Your task to perform on an android device: toggle data saver in the chrome app Image 0: 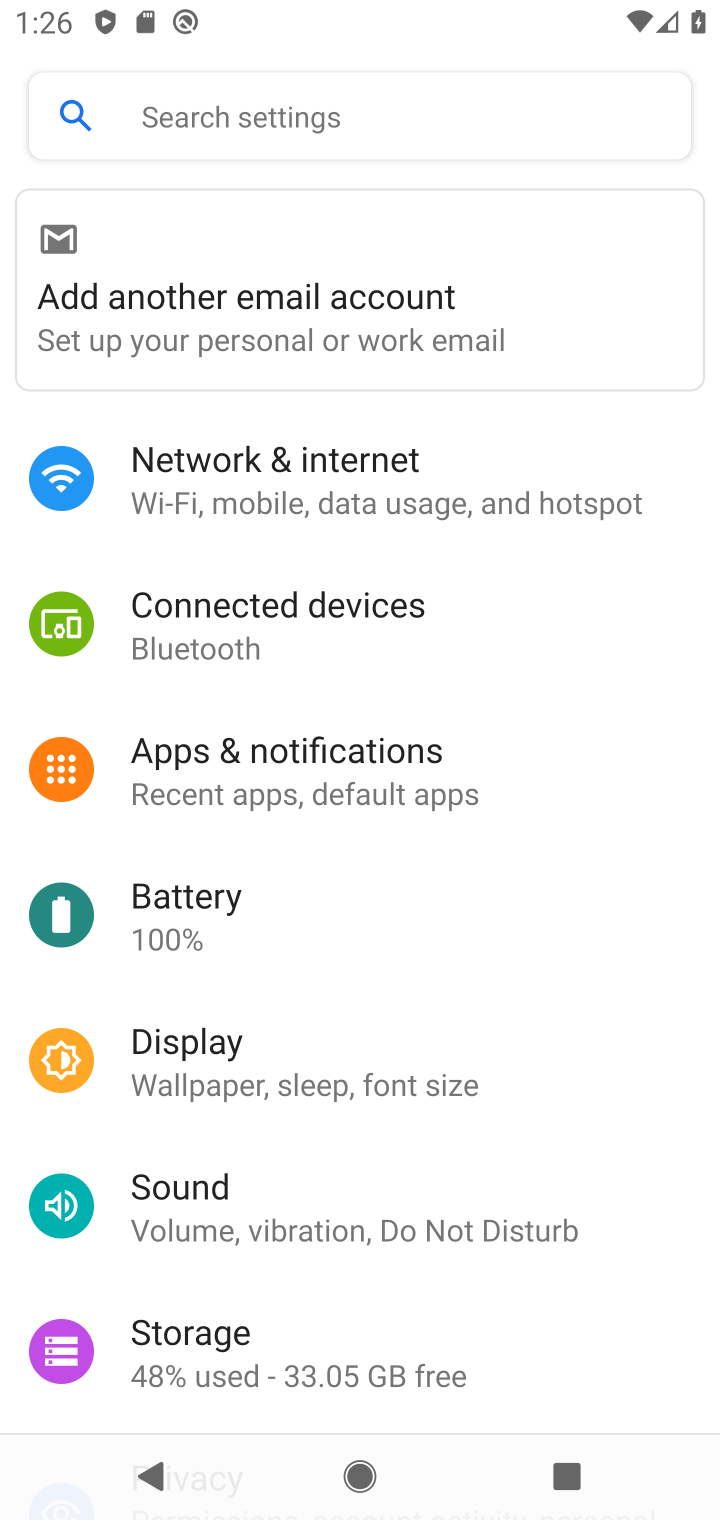
Step 0: press home button
Your task to perform on an android device: toggle data saver in the chrome app Image 1: 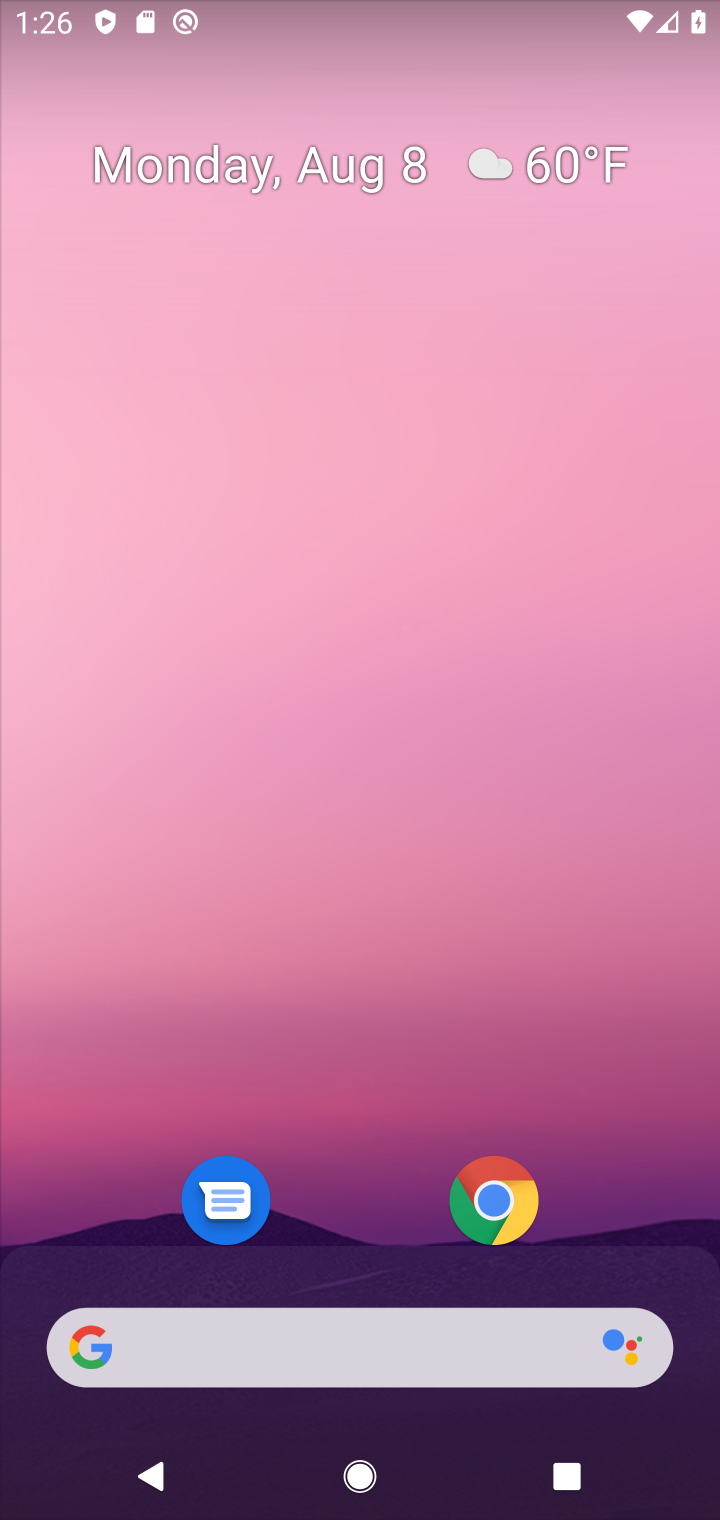
Step 1: drag from (375, 1229) to (457, 226)
Your task to perform on an android device: toggle data saver in the chrome app Image 2: 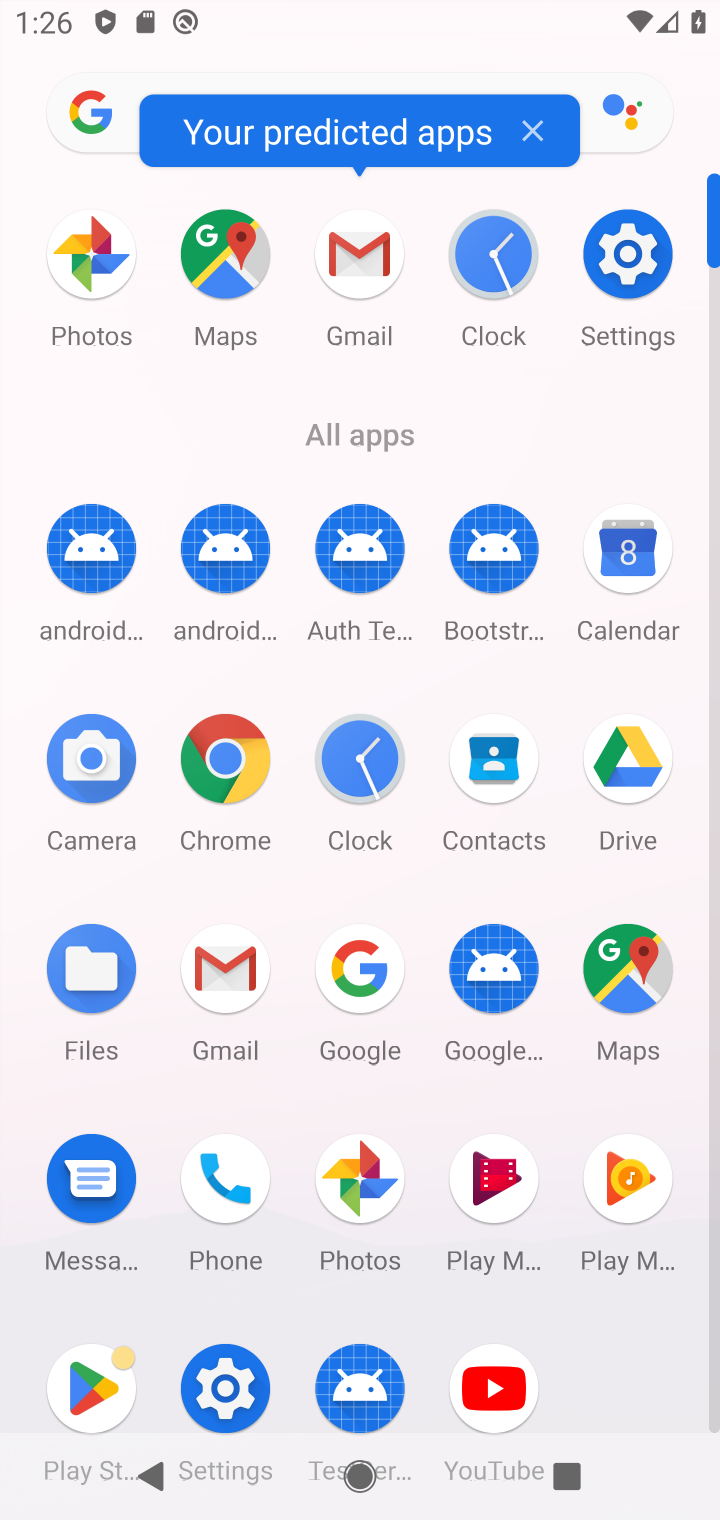
Step 2: click (219, 751)
Your task to perform on an android device: toggle data saver in the chrome app Image 3: 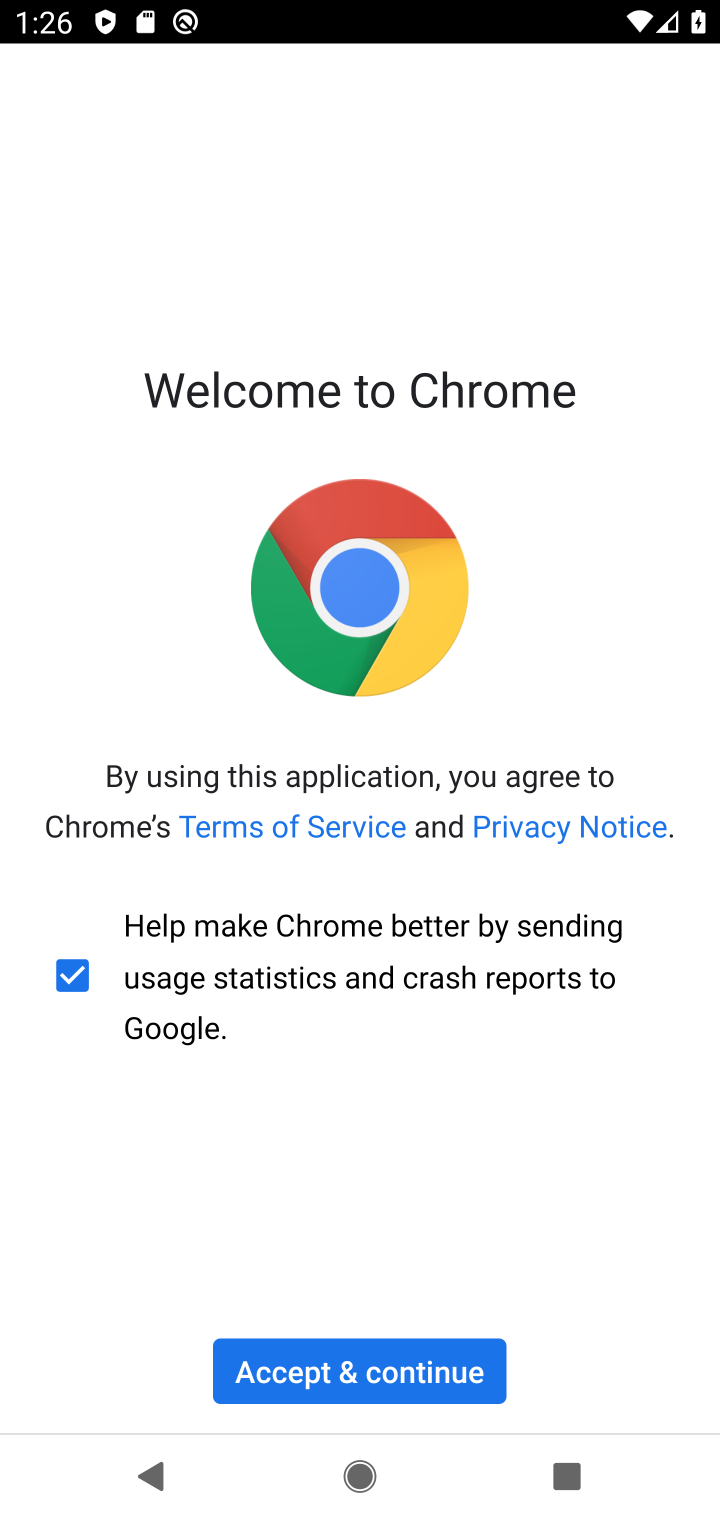
Step 3: click (339, 1366)
Your task to perform on an android device: toggle data saver in the chrome app Image 4: 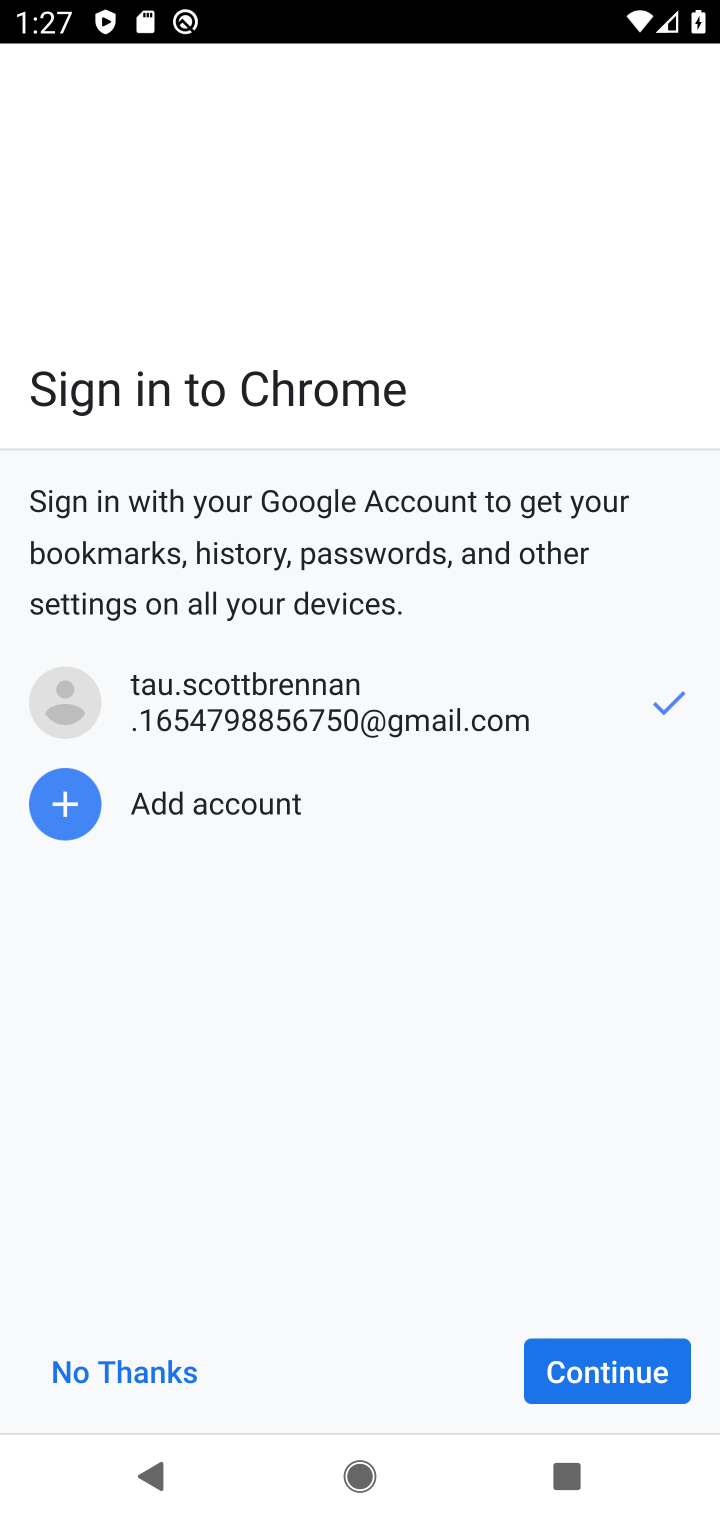
Step 4: click (560, 1377)
Your task to perform on an android device: toggle data saver in the chrome app Image 5: 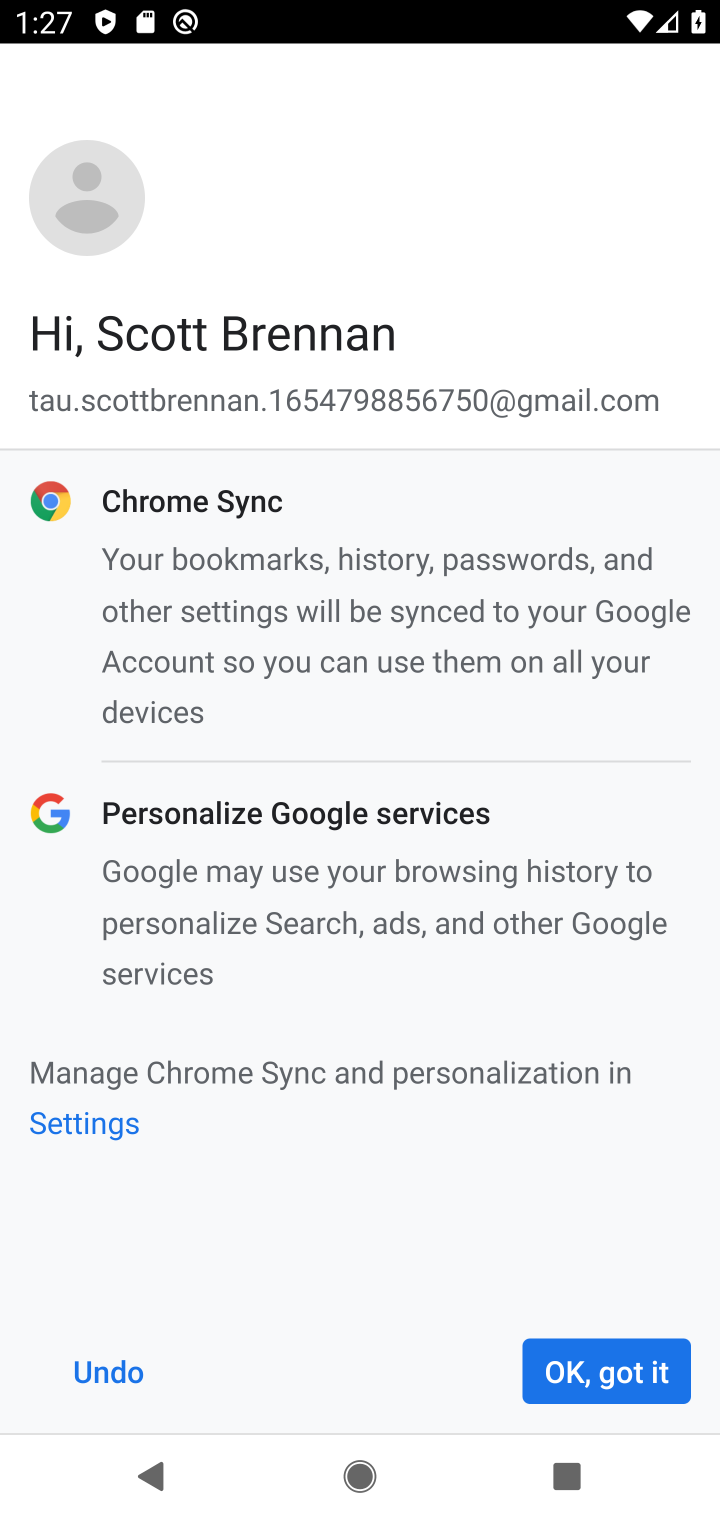
Step 5: click (576, 1374)
Your task to perform on an android device: toggle data saver in the chrome app Image 6: 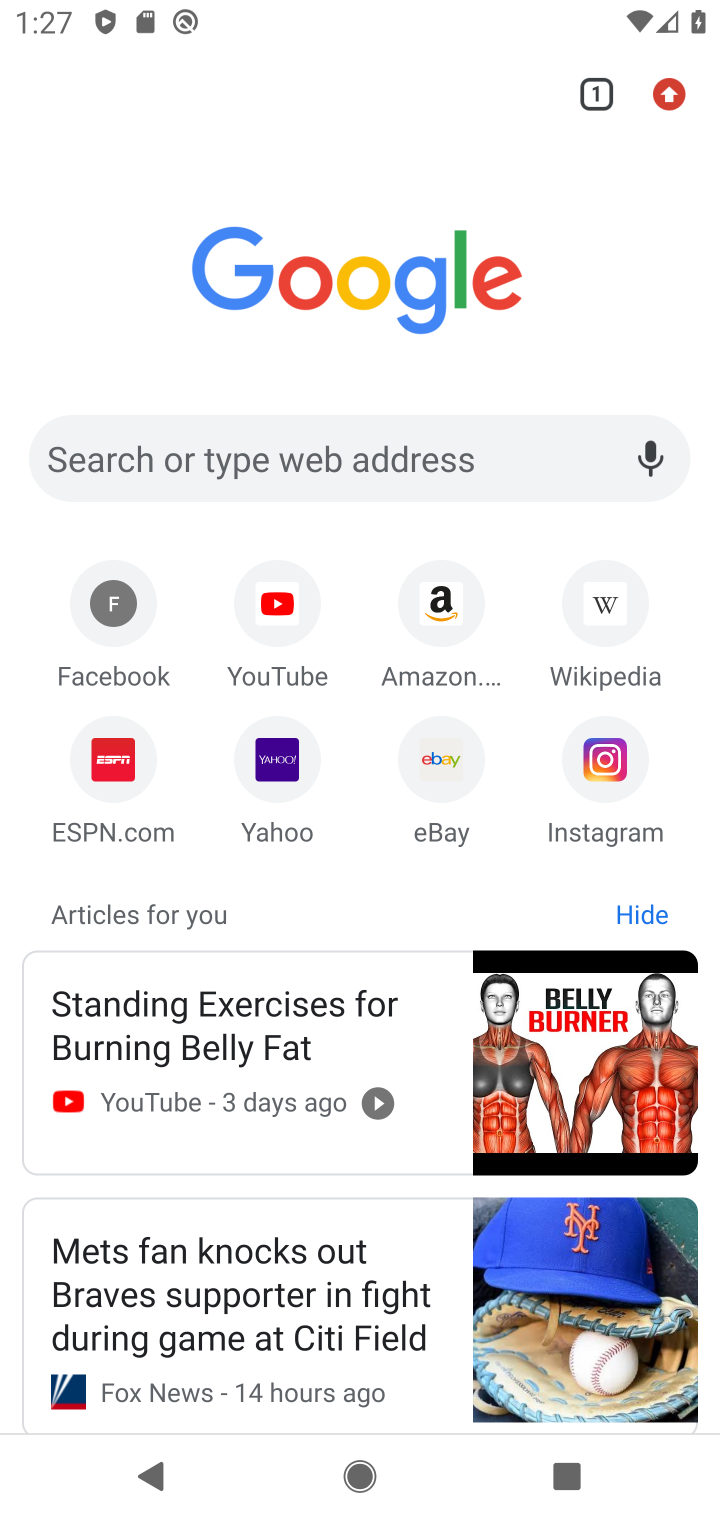
Step 6: click (675, 90)
Your task to perform on an android device: toggle data saver in the chrome app Image 7: 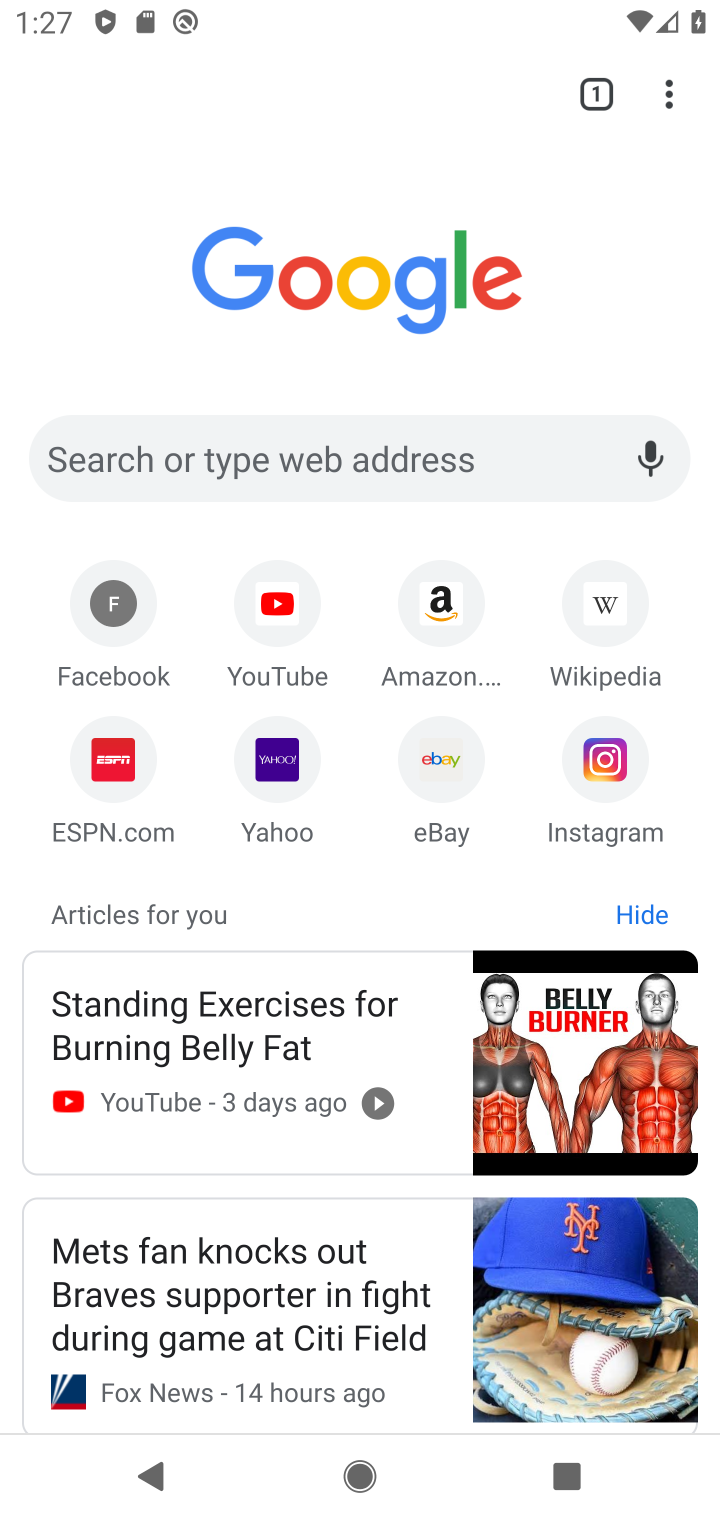
Step 7: click (664, 82)
Your task to perform on an android device: toggle data saver in the chrome app Image 8: 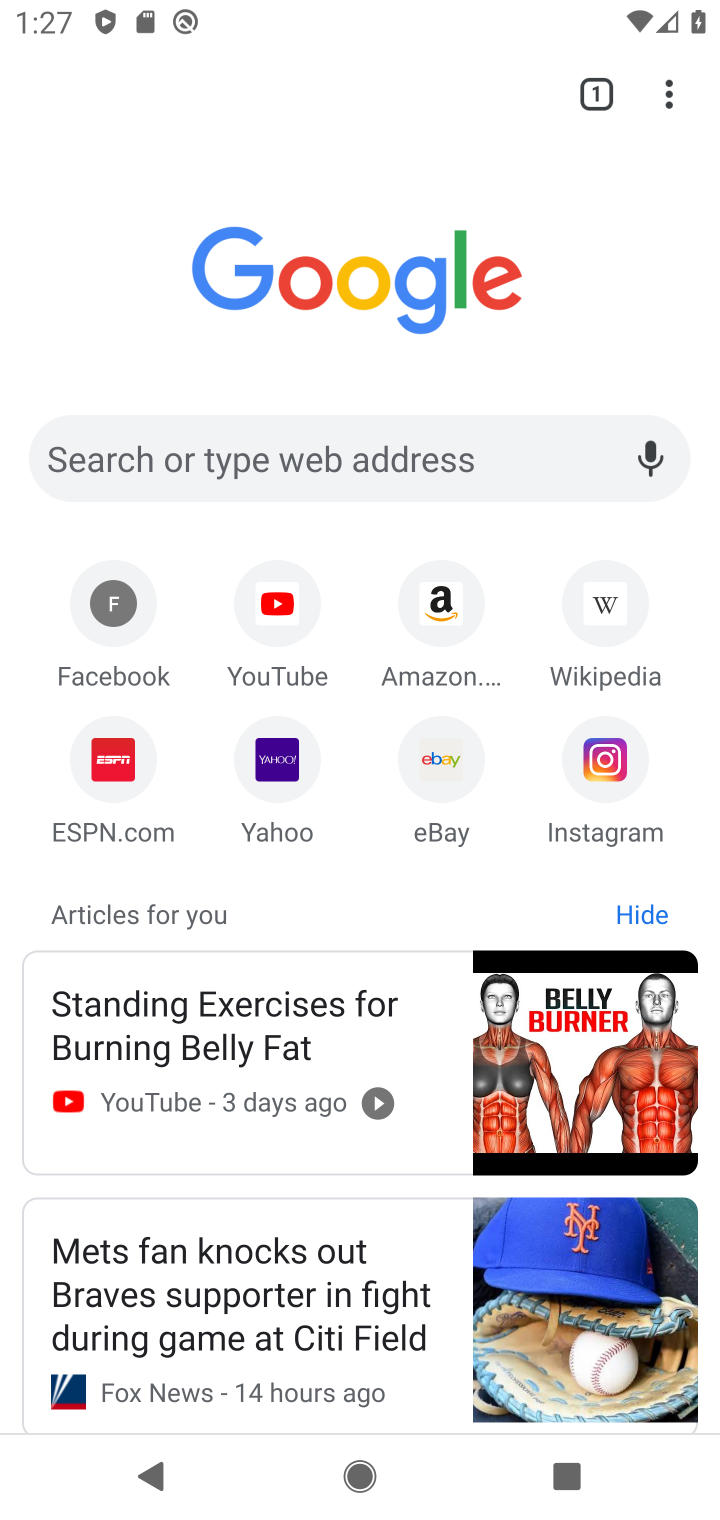
Step 8: click (664, 84)
Your task to perform on an android device: toggle data saver in the chrome app Image 9: 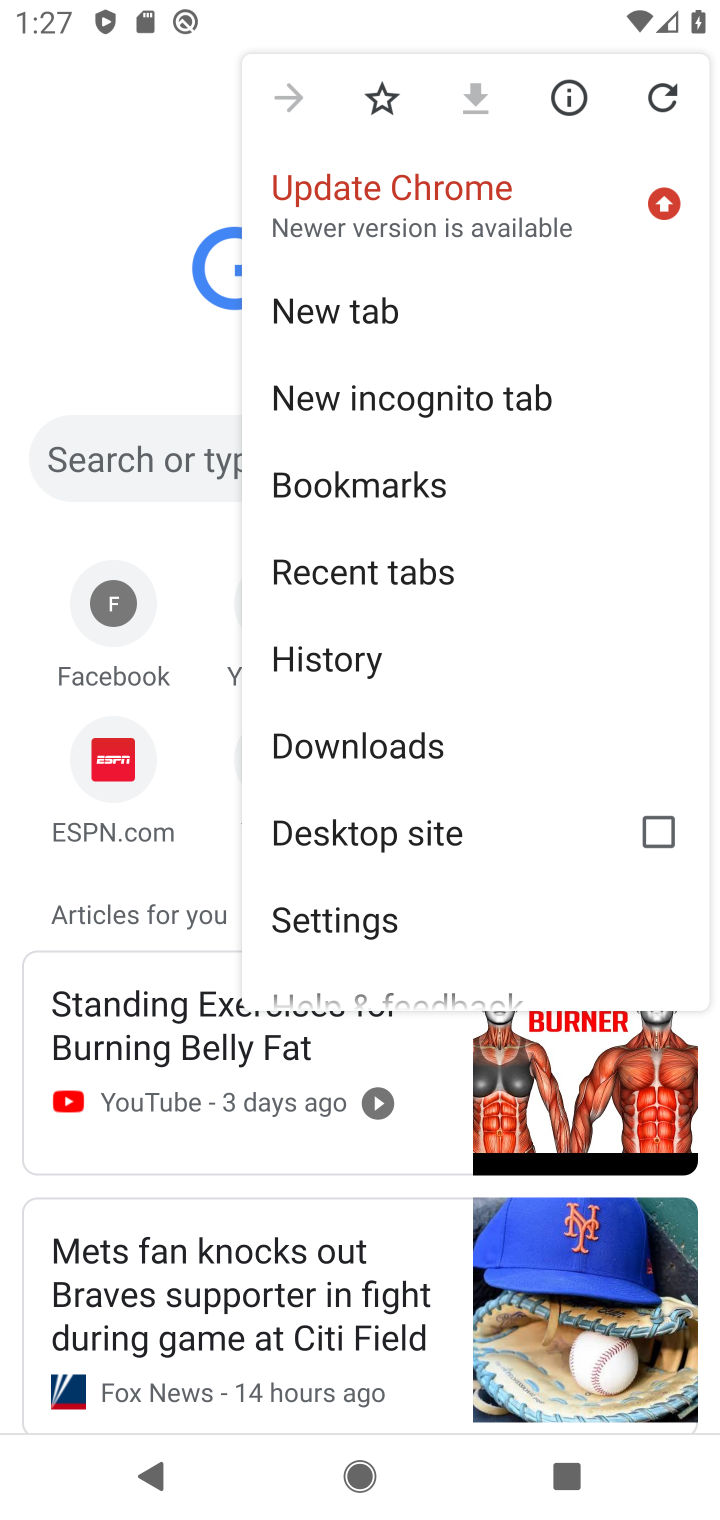
Step 9: click (374, 927)
Your task to perform on an android device: toggle data saver in the chrome app Image 10: 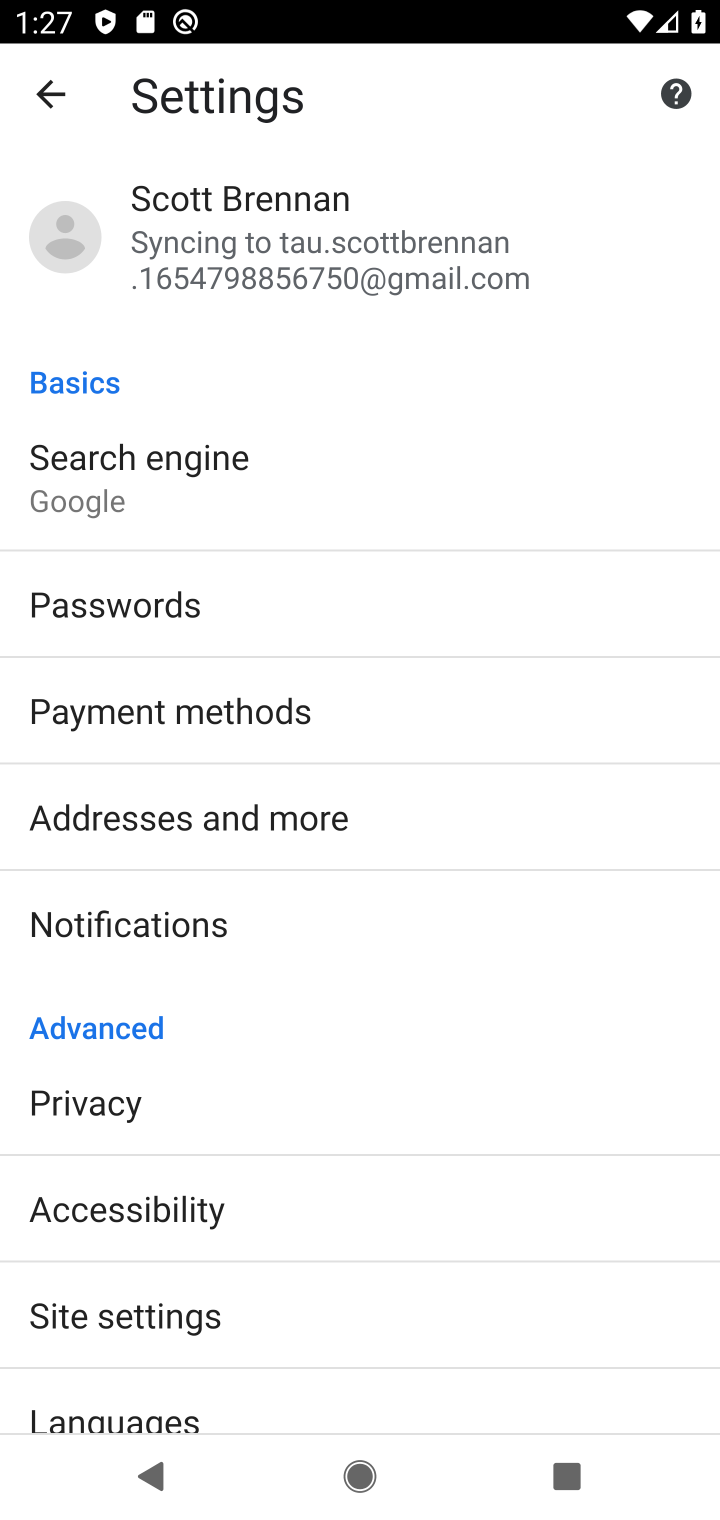
Step 10: drag from (256, 1217) to (294, 564)
Your task to perform on an android device: toggle data saver in the chrome app Image 11: 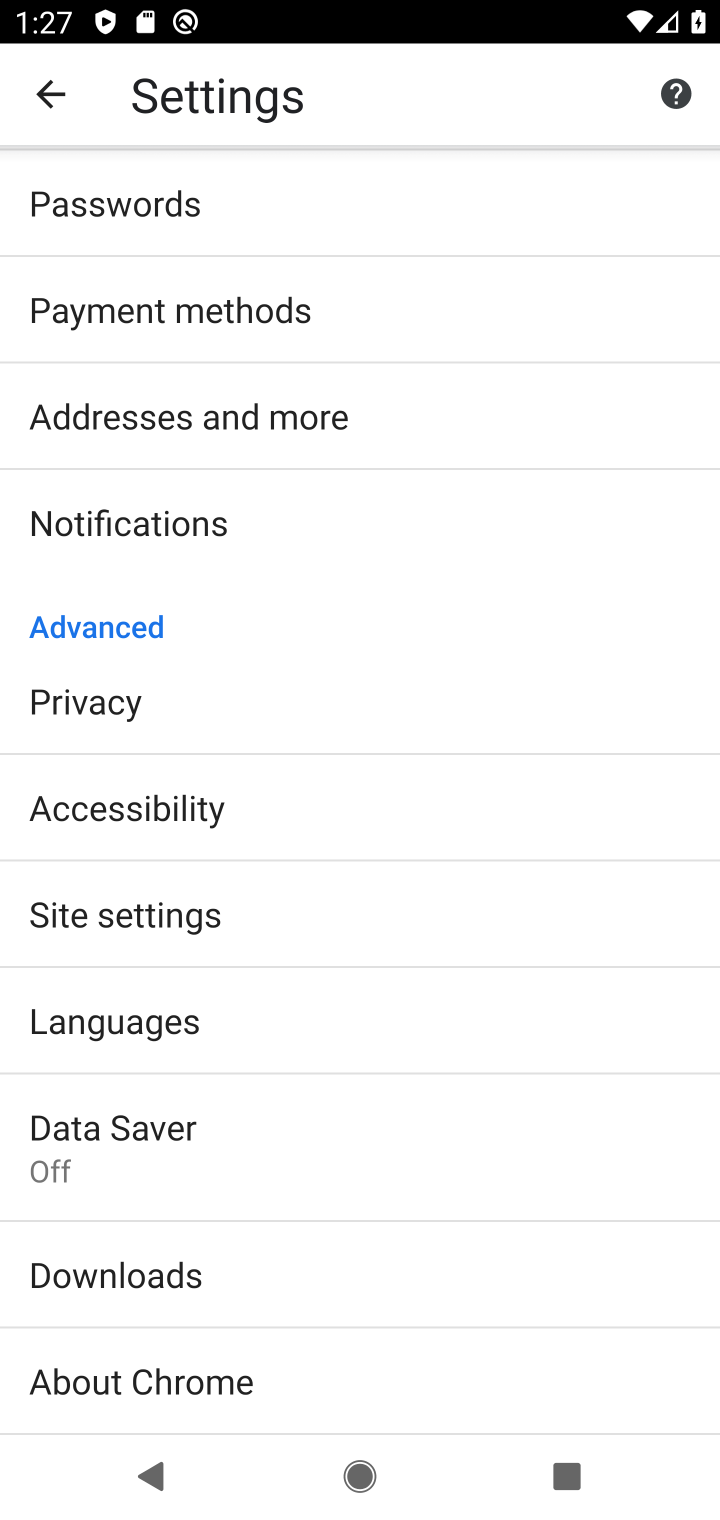
Step 11: drag from (274, 1334) to (312, 520)
Your task to perform on an android device: toggle data saver in the chrome app Image 12: 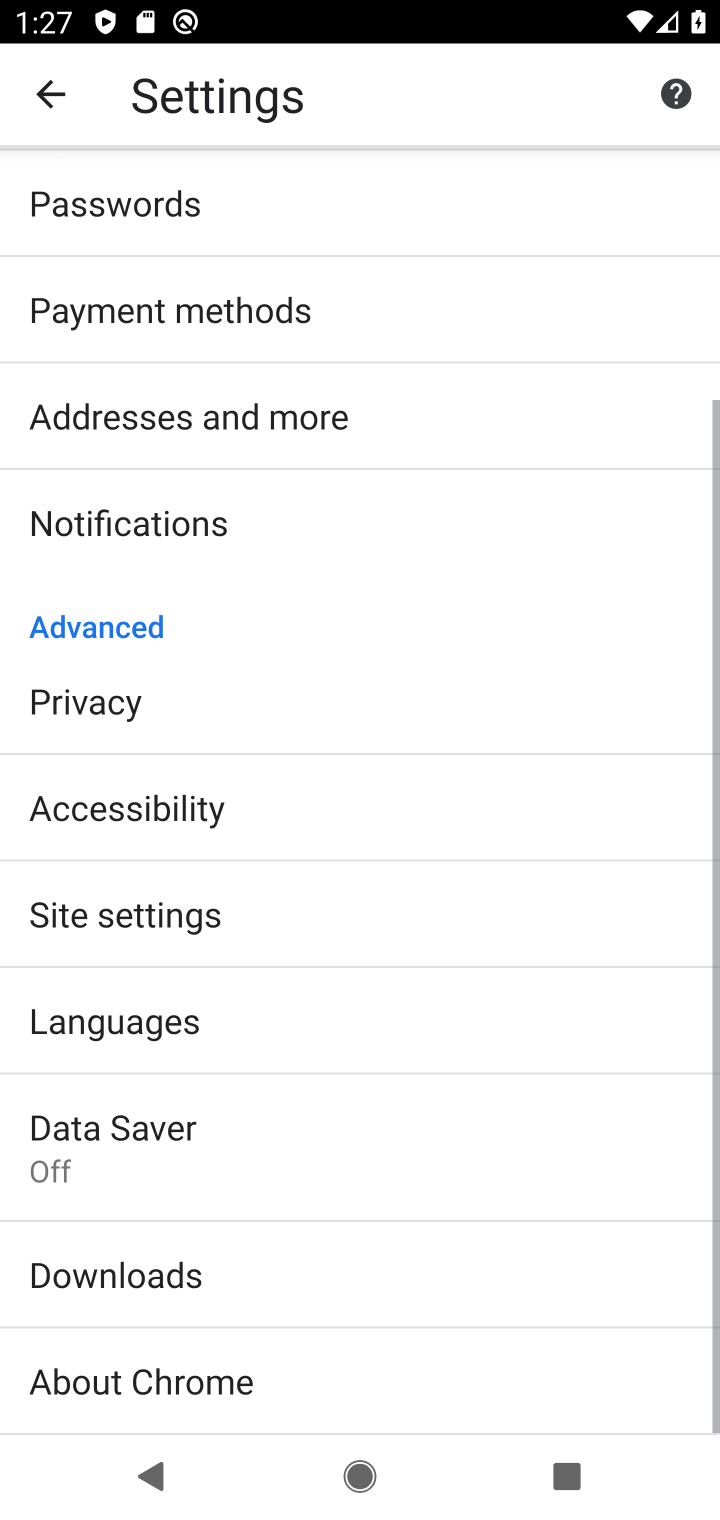
Step 12: click (183, 1144)
Your task to perform on an android device: toggle data saver in the chrome app Image 13: 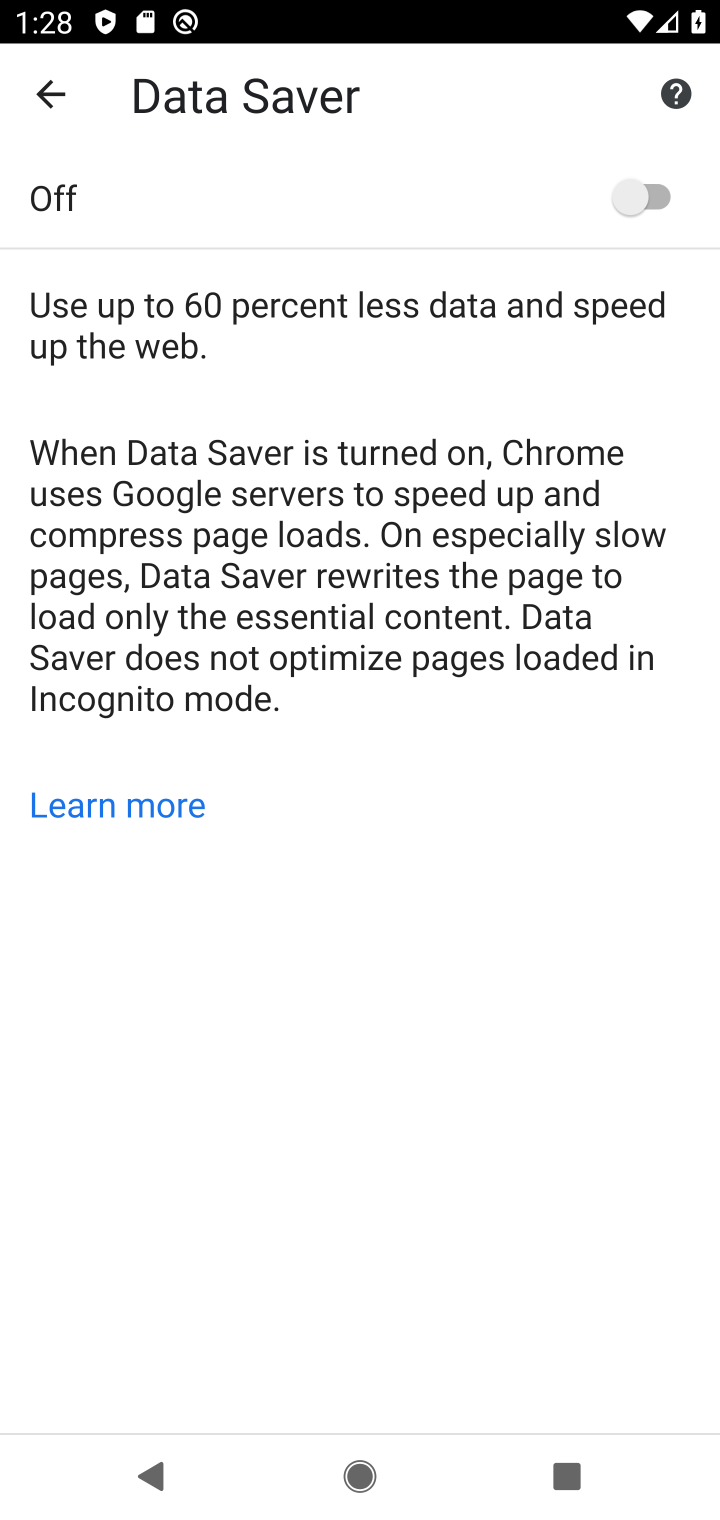
Step 13: click (647, 202)
Your task to perform on an android device: toggle data saver in the chrome app Image 14: 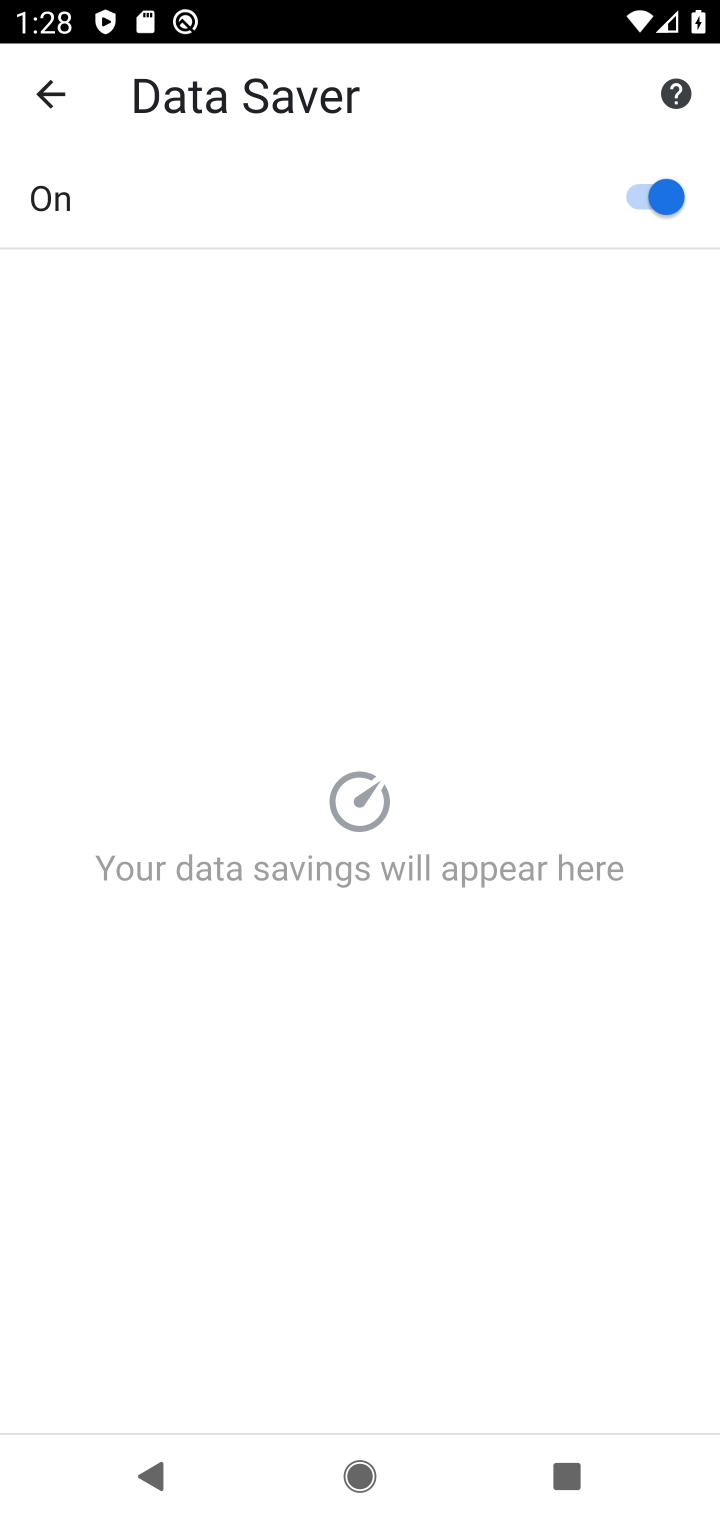
Step 14: task complete